Your task to perform on an android device: Show the shopping cart on costco. Image 0: 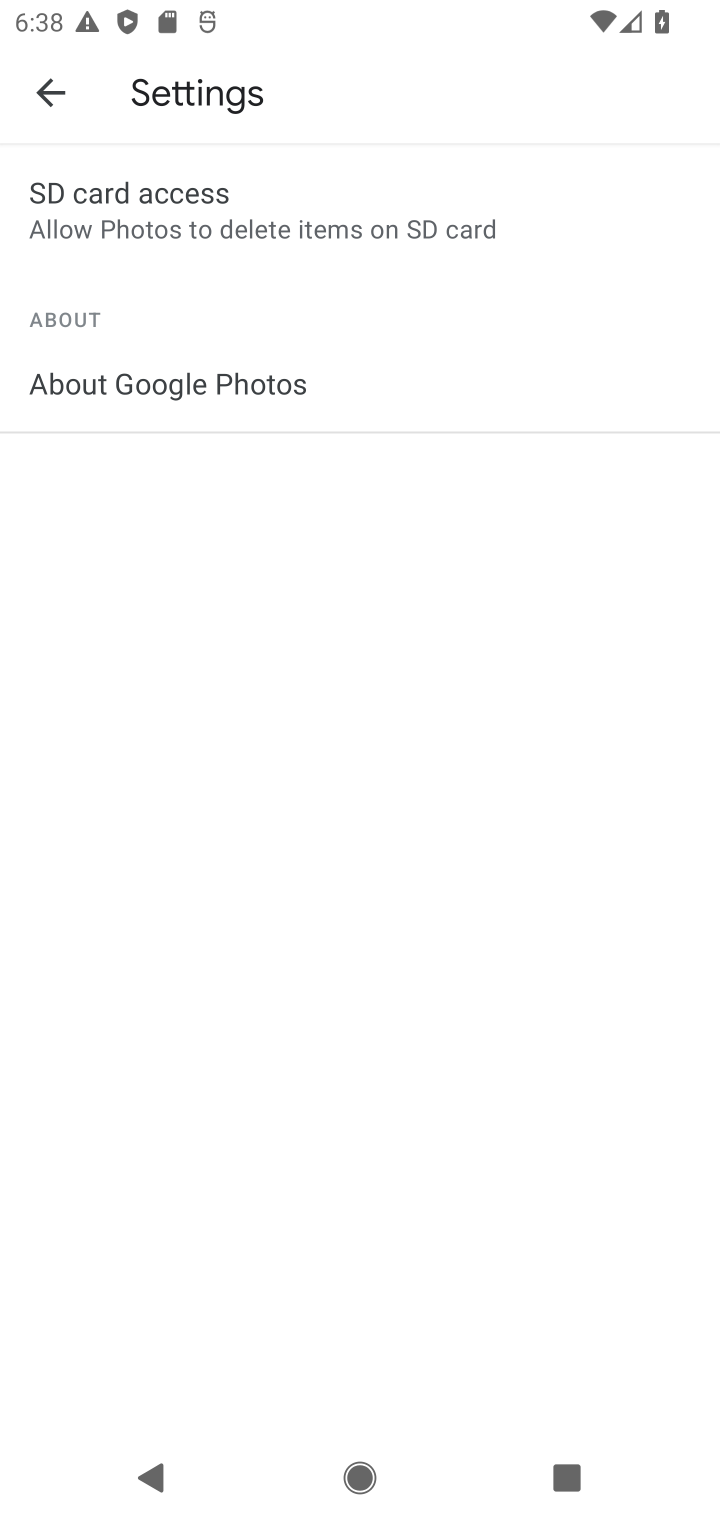
Step 0: press home button
Your task to perform on an android device: Show the shopping cart on costco. Image 1: 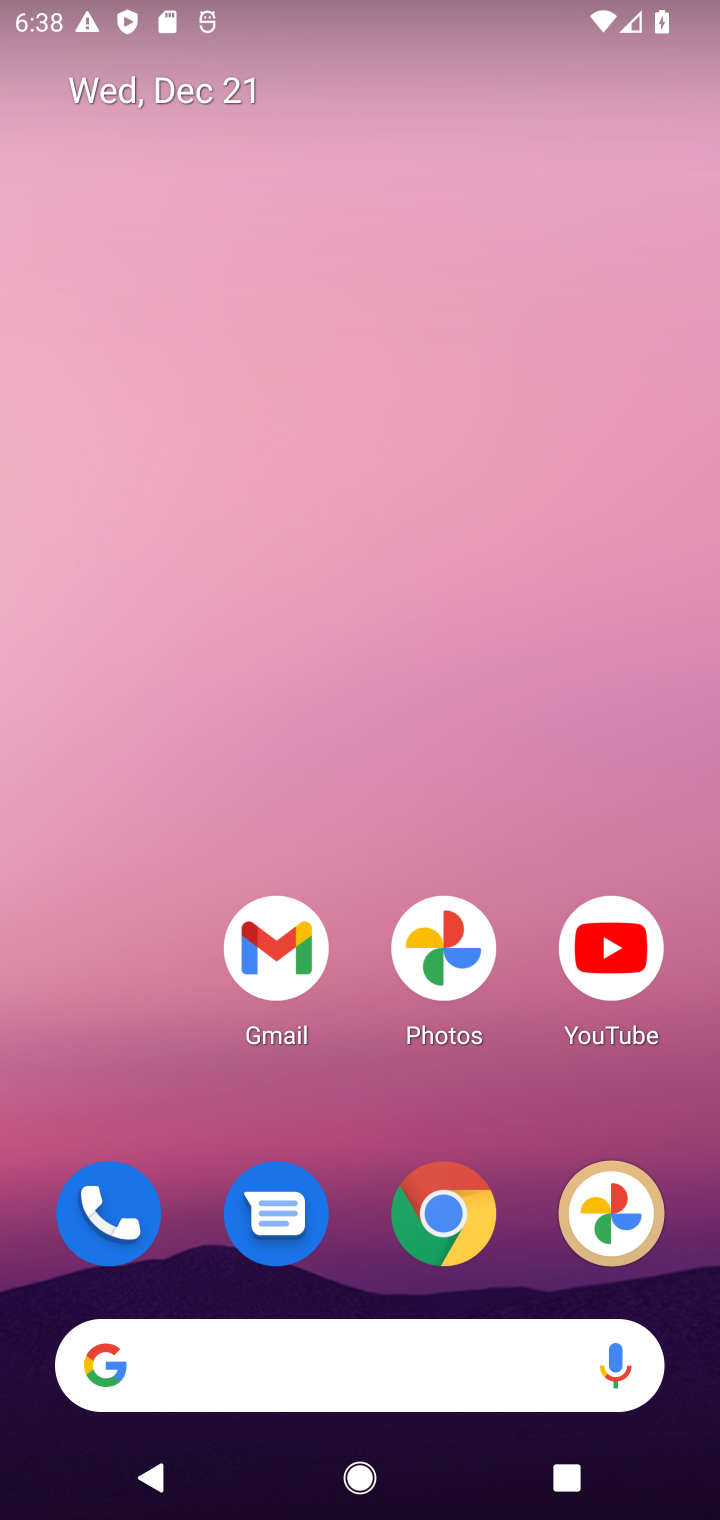
Step 1: click (451, 1243)
Your task to perform on an android device: Show the shopping cart on costco. Image 2: 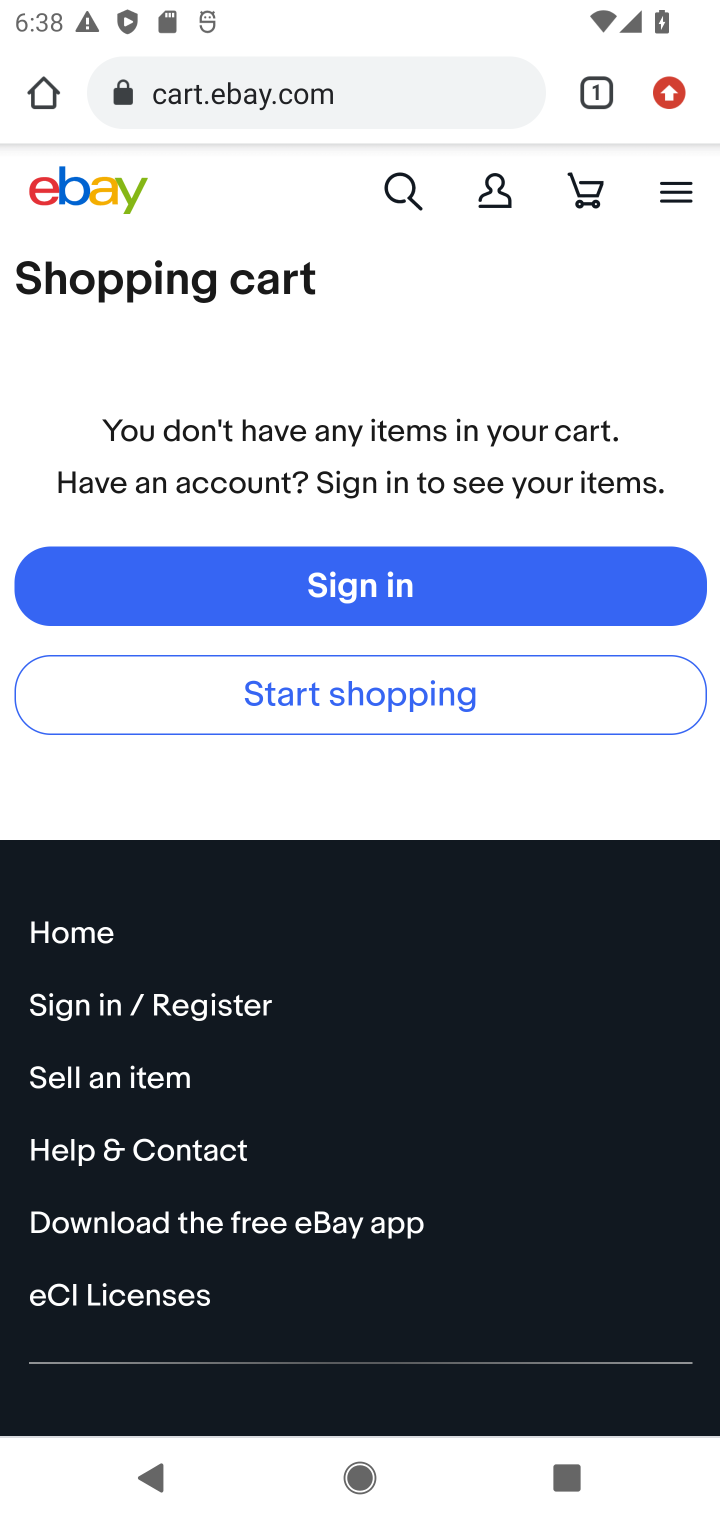
Step 2: click (366, 80)
Your task to perform on an android device: Show the shopping cart on costco. Image 3: 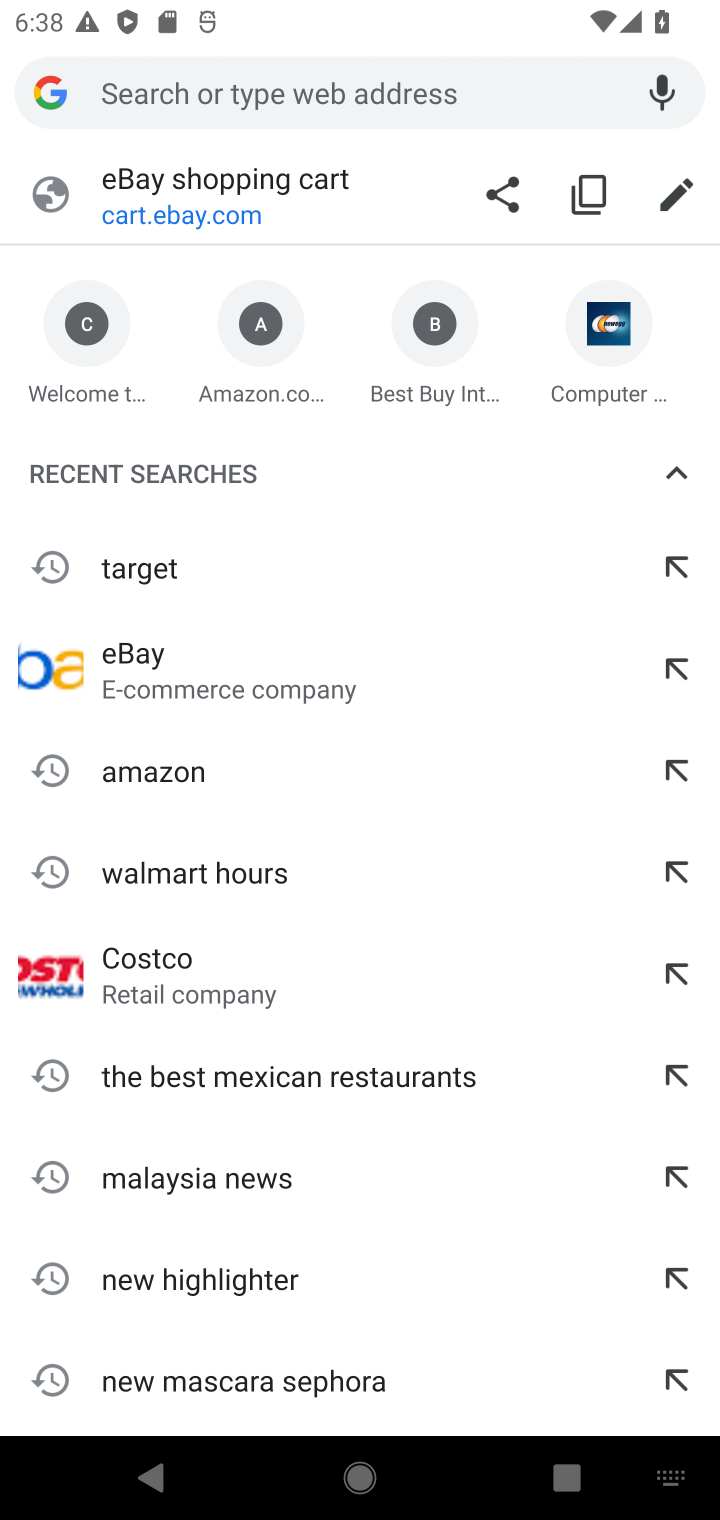
Step 3: type "costco"
Your task to perform on an android device: Show the shopping cart on costco. Image 4: 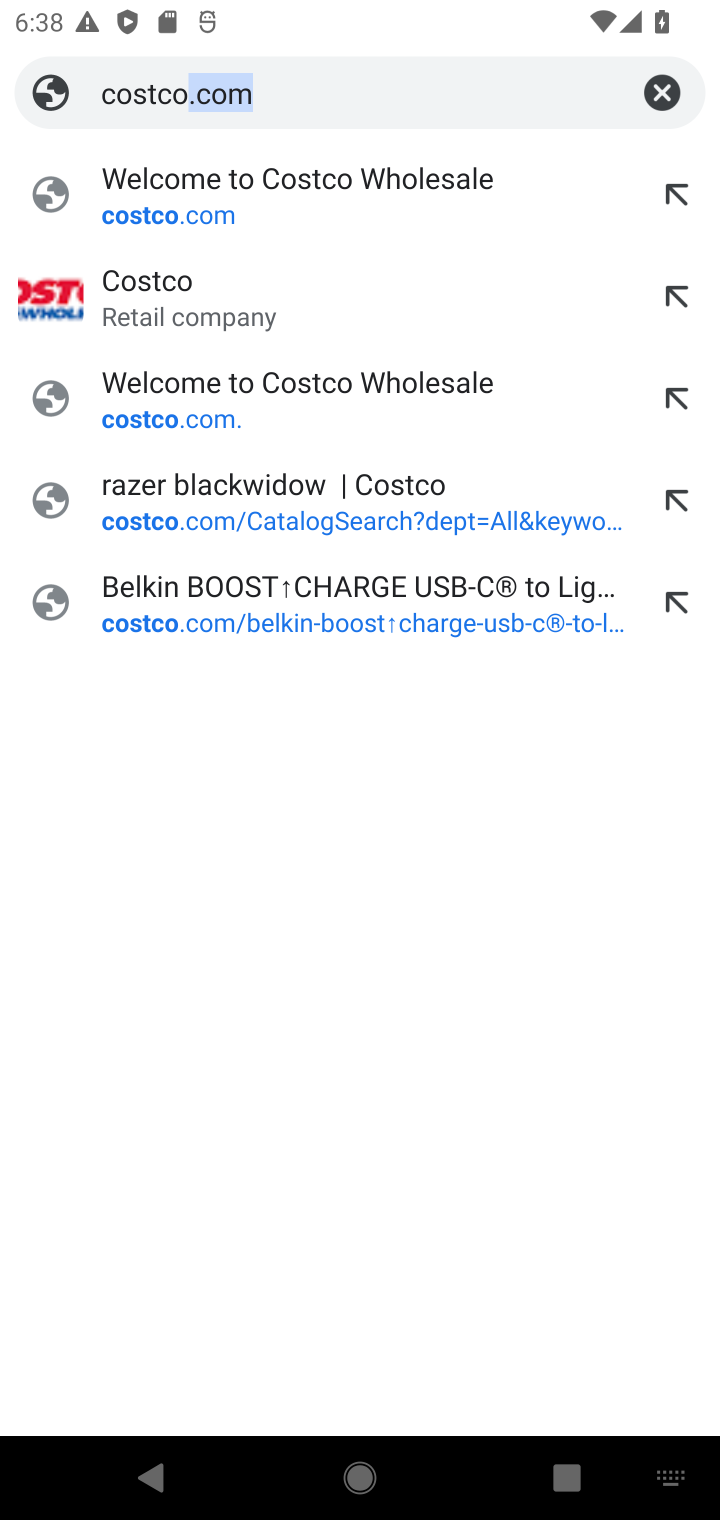
Step 4: click (249, 211)
Your task to perform on an android device: Show the shopping cart on costco. Image 5: 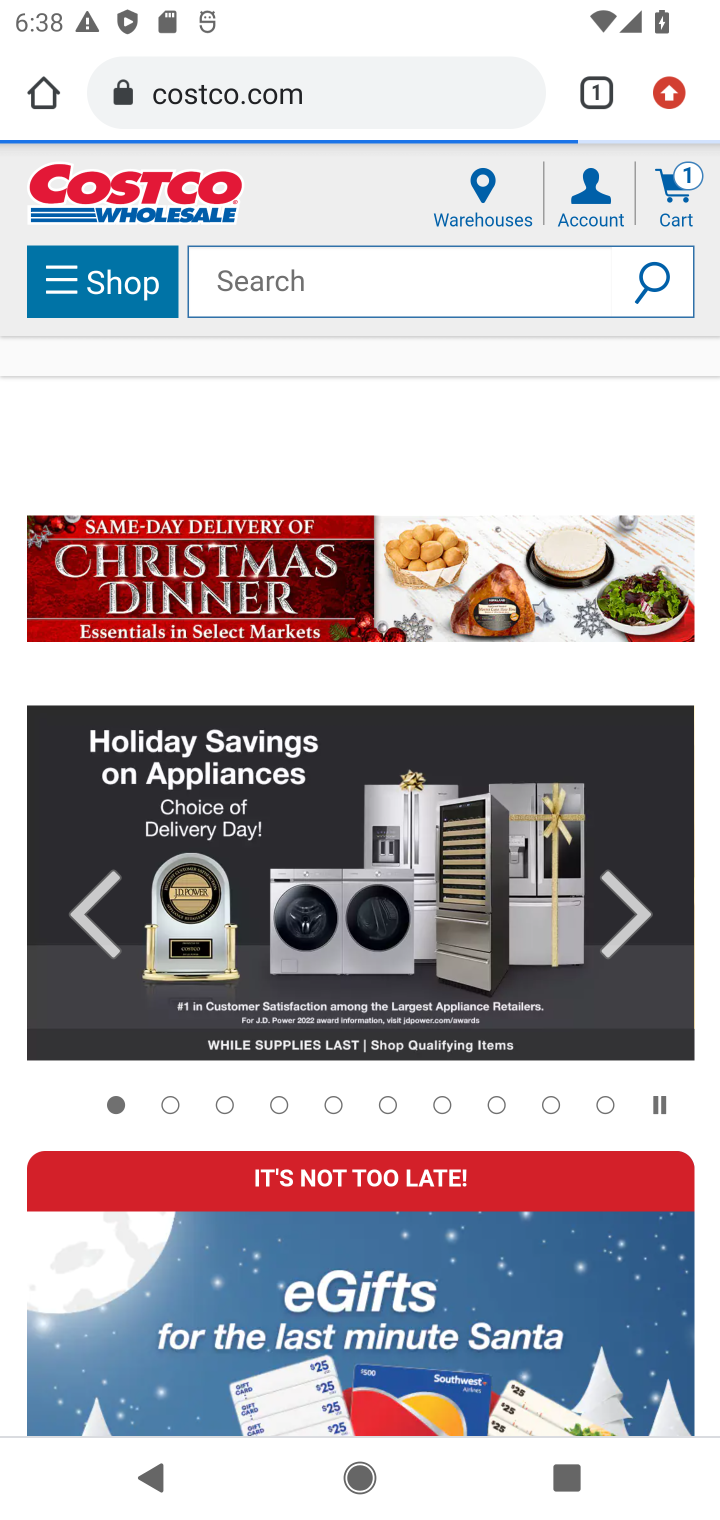
Step 5: click (683, 195)
Your task to perform on an android device: Show the shopping cart on costco. Image 6: 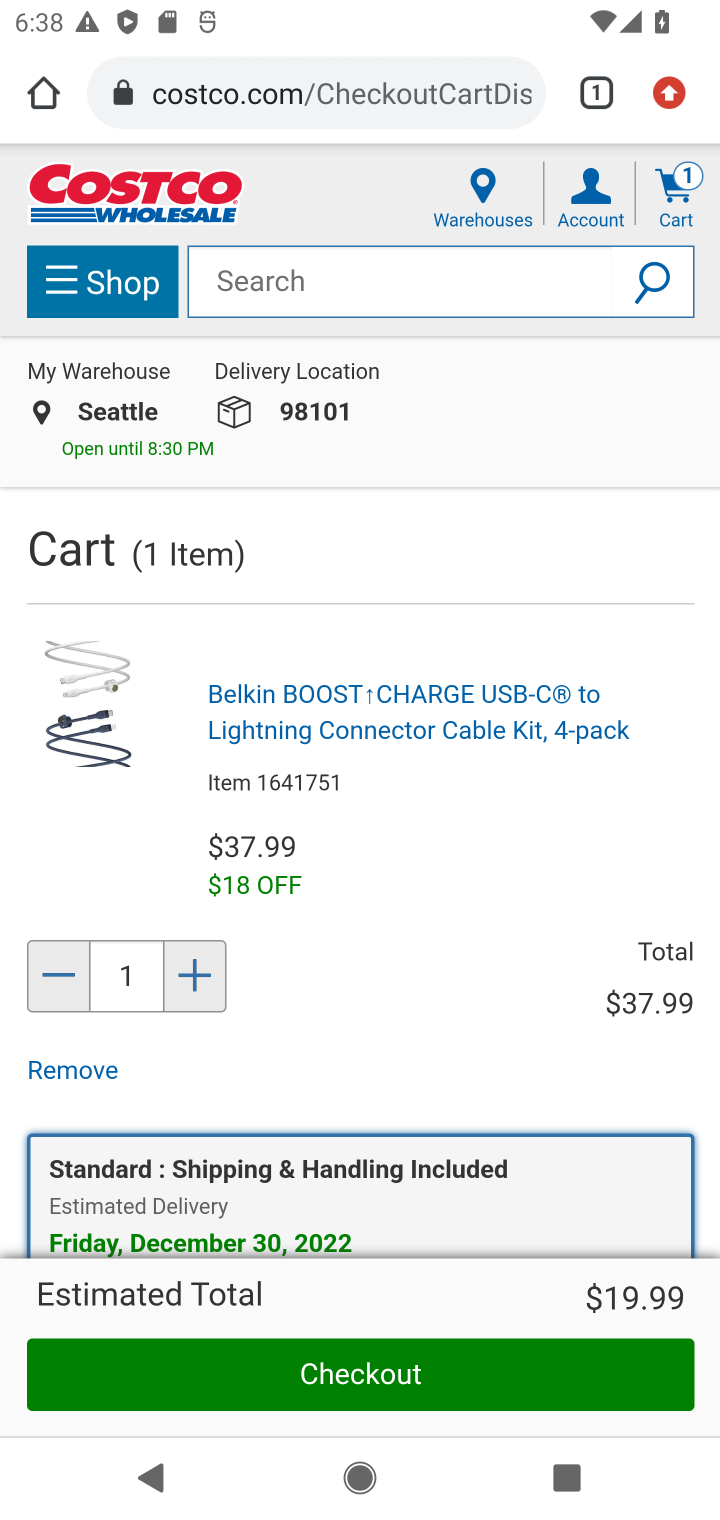
Step 6: task complete